Your task to perform on an android device: Open Maps and search for coffee Image 0: 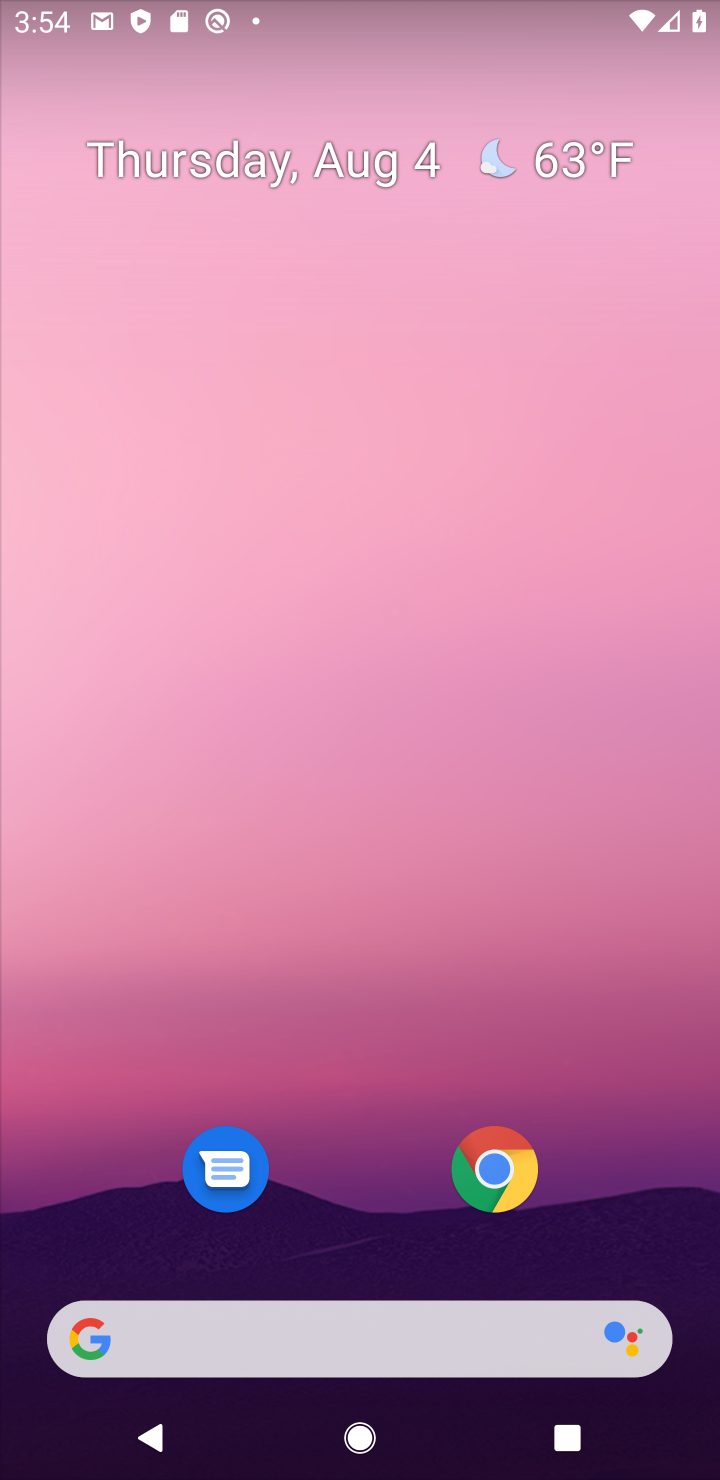
Step 0: drag from (314, 1239) to (378, 35)
Your task to perform on an android device: Open Maps and search for coffee Image 1: 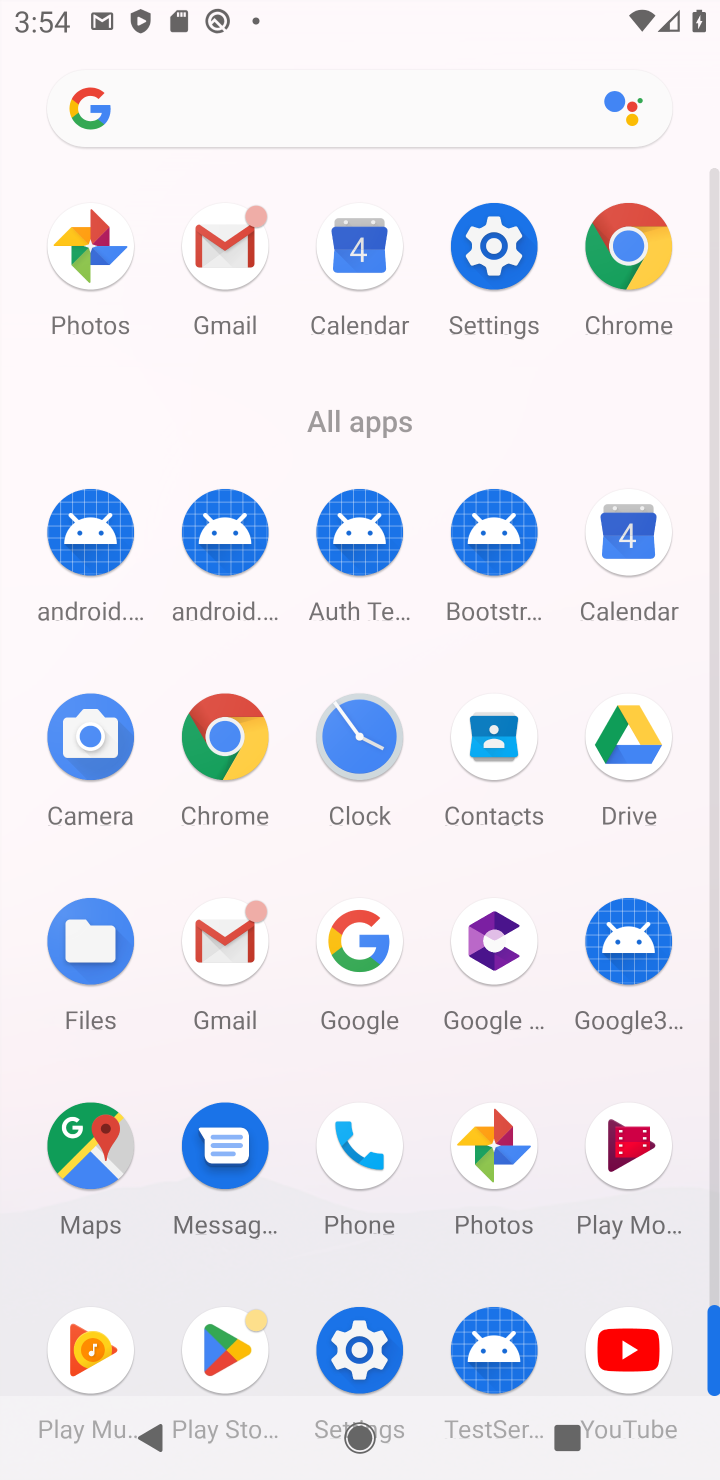
Step 1: click (91, 1158)
Your task to perform on an android device: Open Maps and search for coffee Image 2: 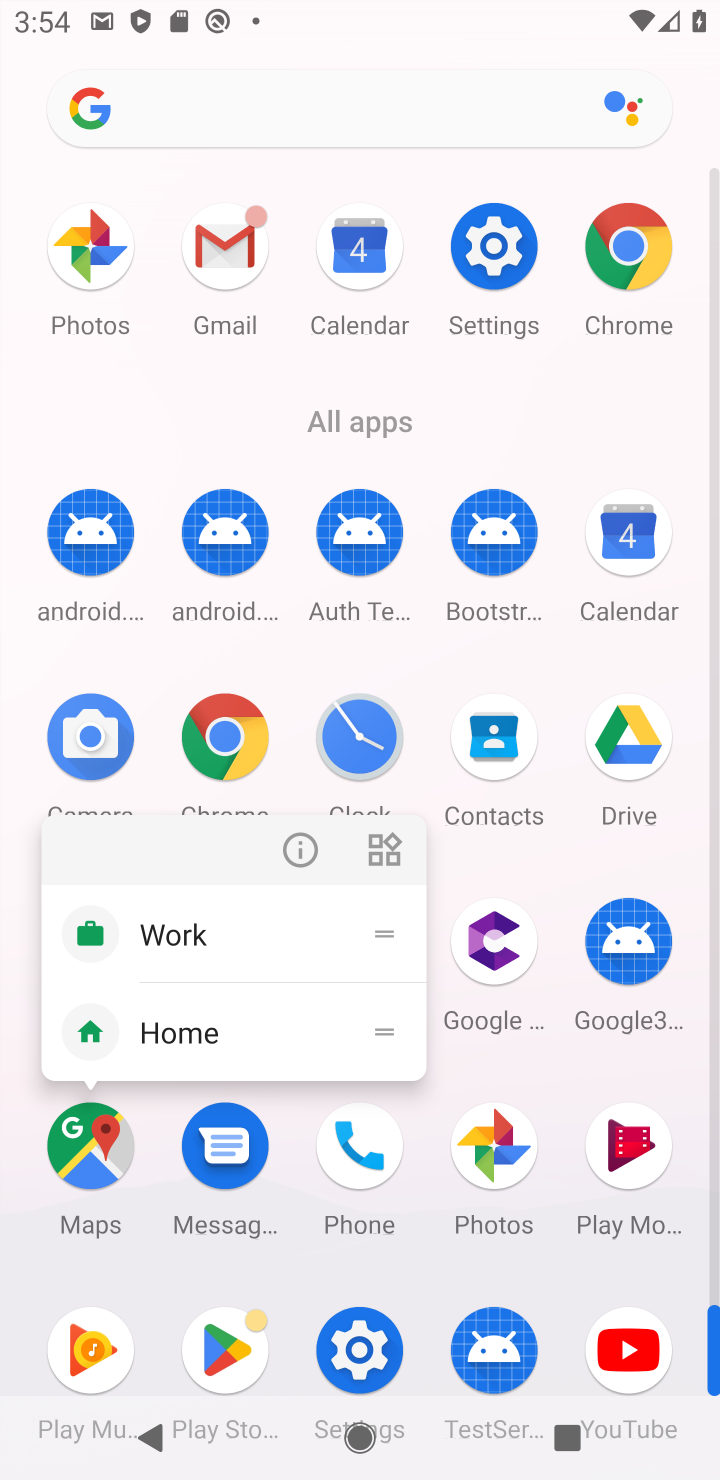
Step 2: click (81, 1174)
Your task to perform on an android device: Open Maps and search for coffee Image 3: 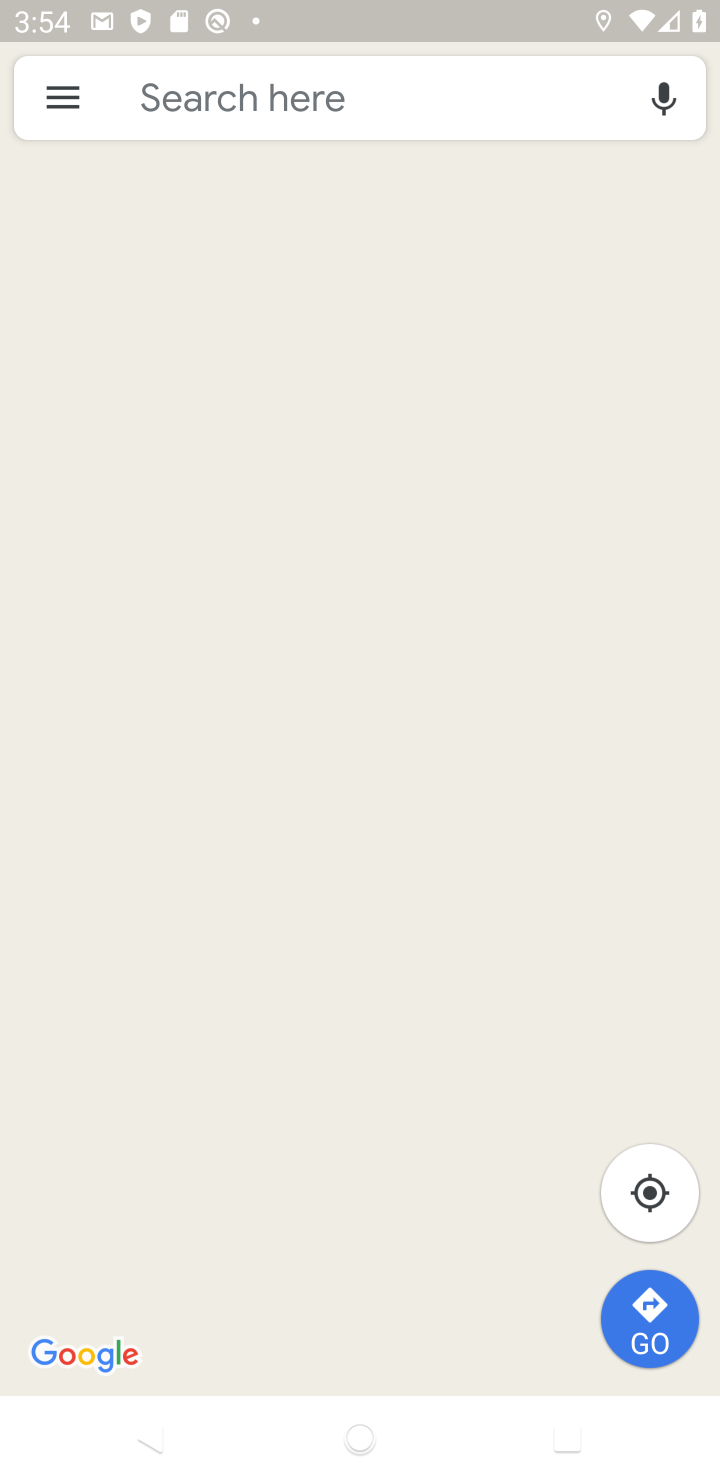
Step 3: click (335, 86)
Your task to perform on an android device: Open Maps and search for coffee Image 4: 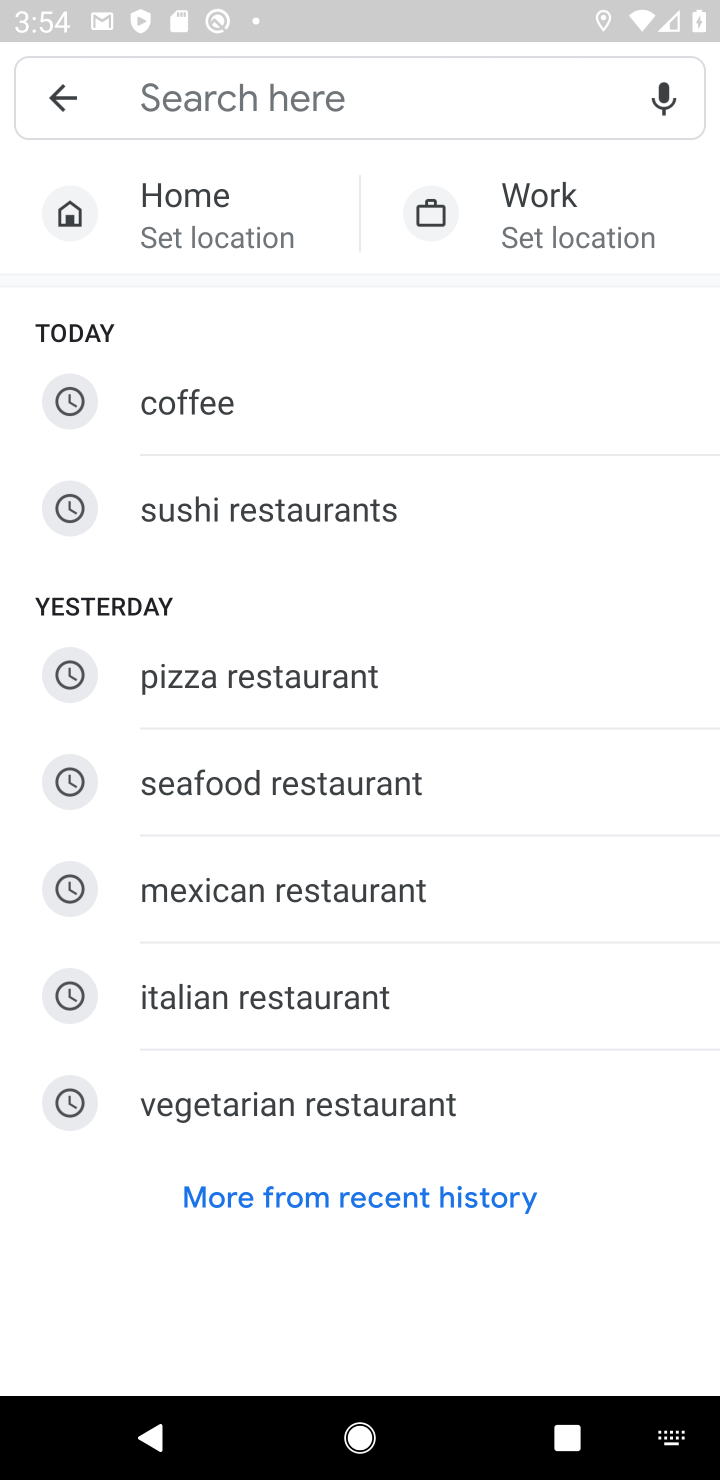
Step 4: type "coffee"
Your task to perform on an android device: Open Maps and search for coffee Image 5: 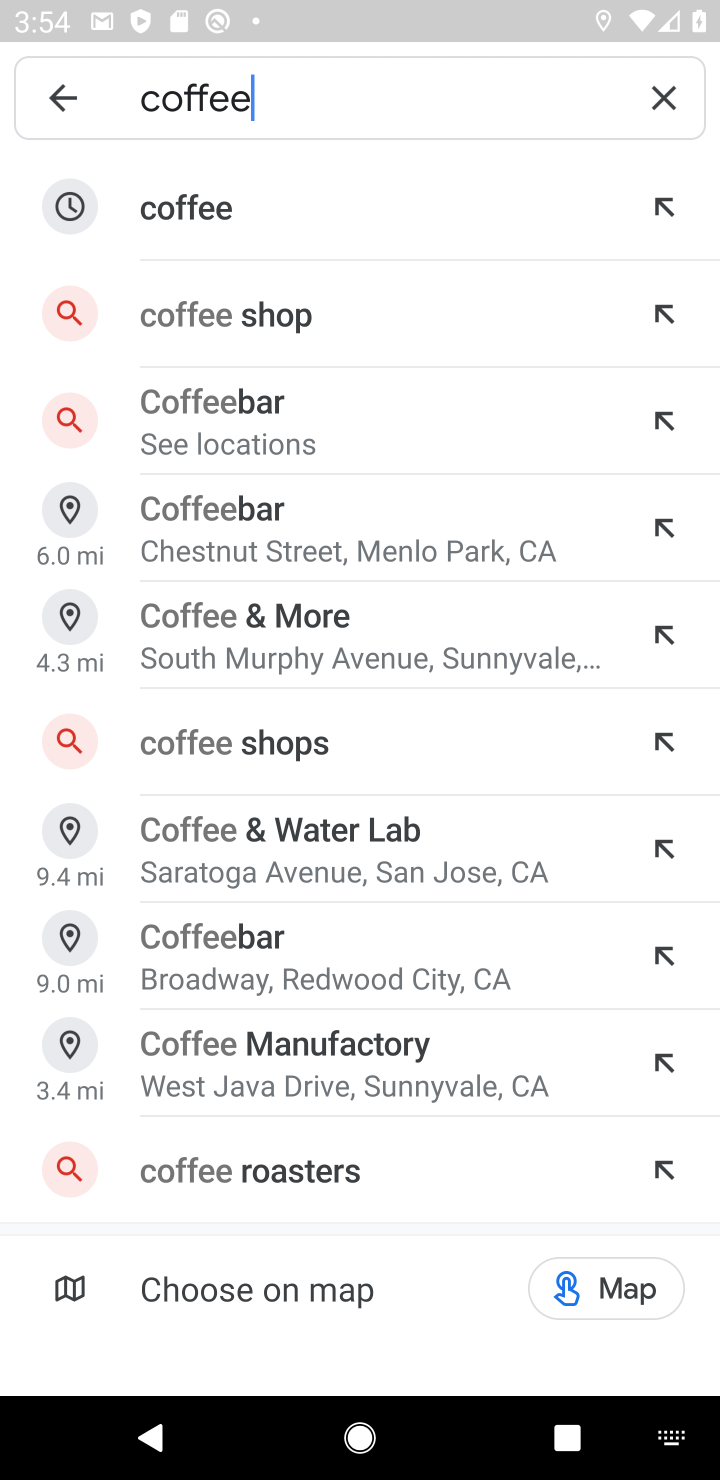
Step 5: click (235, 206)
Your task to perform on an android device: Open Maps and search for coffee Image 6: 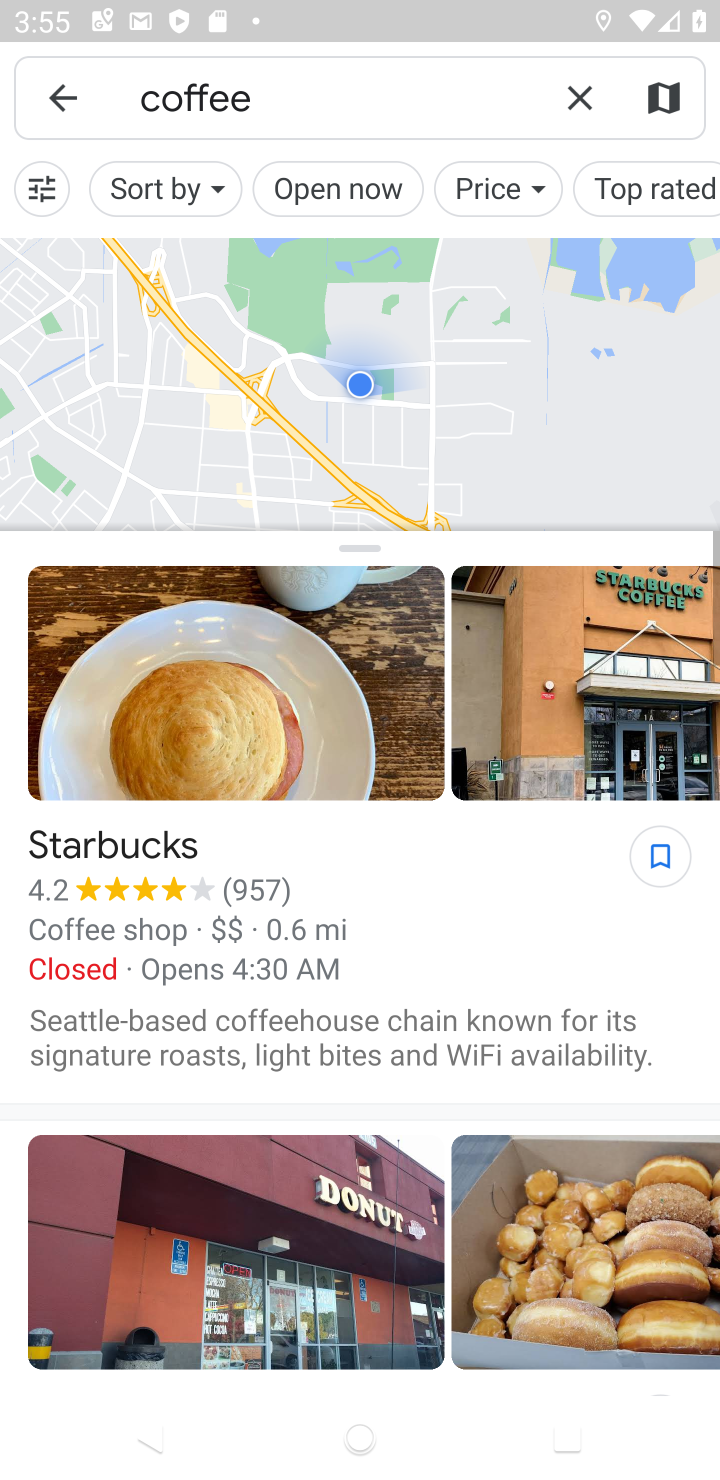
Step 6: task complete